Your task to perform on an android device: Go to notification settings Image 0: 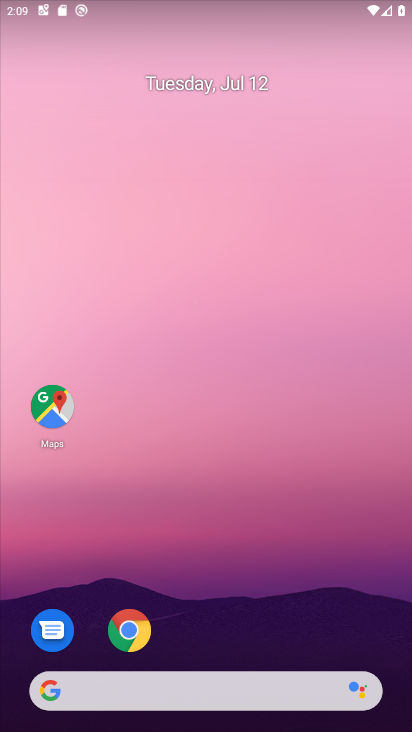
Step 0: drag from (206, 578) to (279, 146)
Your task to perform on an android device: Go to notification settings Image 1: 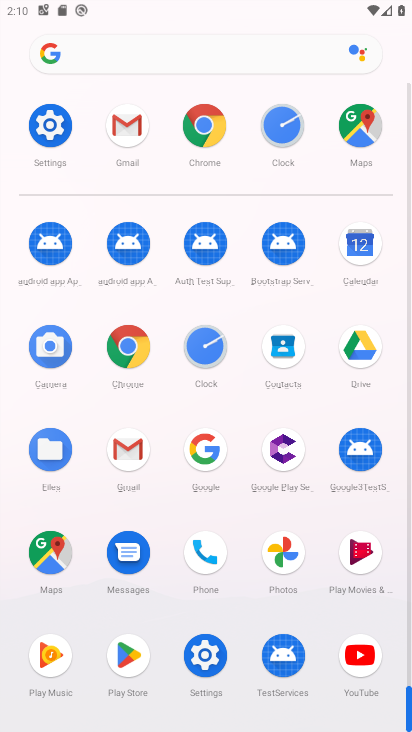
Step 1: click (46, 135)
Your task to perform on an android device: Go to notification settings Image 2: 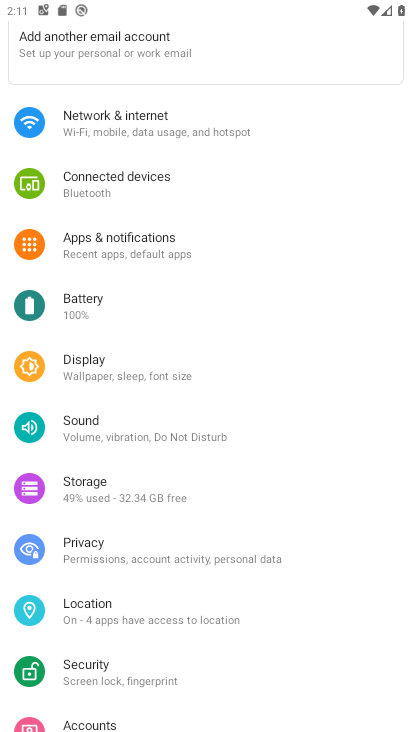
Step 2: click (129, 262)
Your task to perform on an android device: Go to notification settings Image 3: 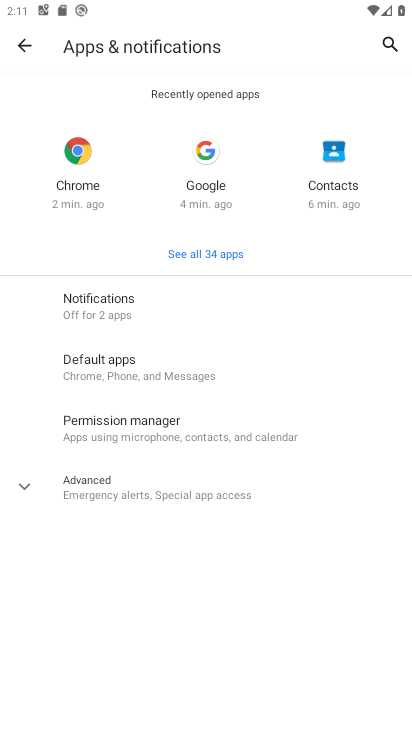
Step 3: click (156, 303)
Your task to perform on an android device: Go to notification settings Image 4: 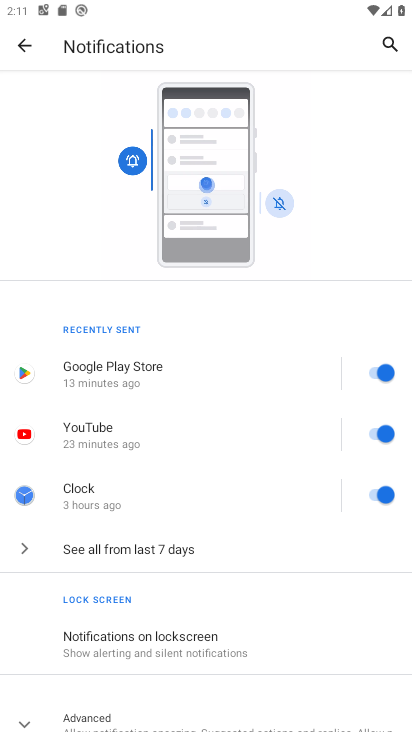
Step 4: task complete